Your task to perform on an android device: Open display settings Image 0: 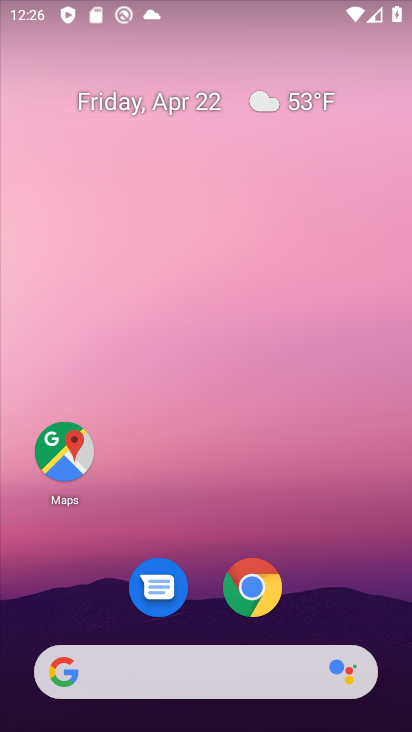
Step 0: drag from (339, 381) to (329, 91)
Your task to perform on an android device: Open display settings Image 1: 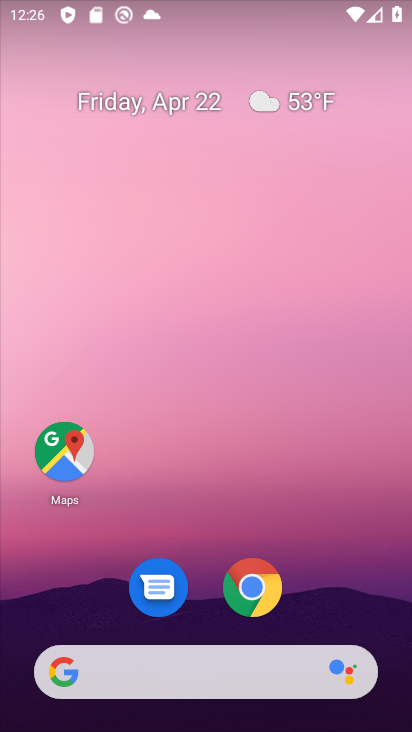
Step 1: drag from (345, 591) to (356, 174)
Your task to perform on an android device: Open display settings Image 2: 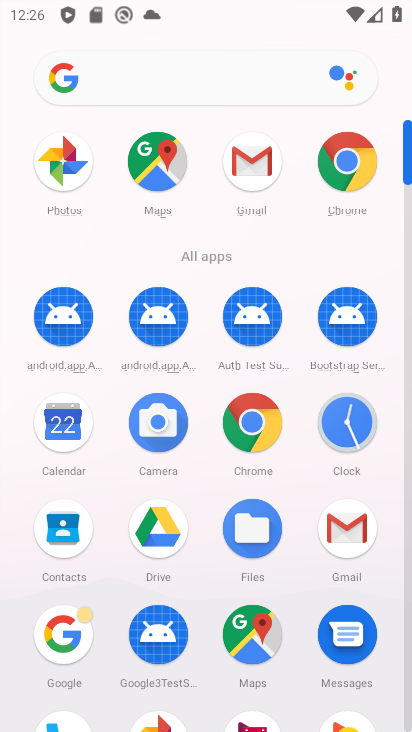
Step 2: drag from (313, 257) to (332, 16)
Your task to perform on an android device: Open display settings Image 3: 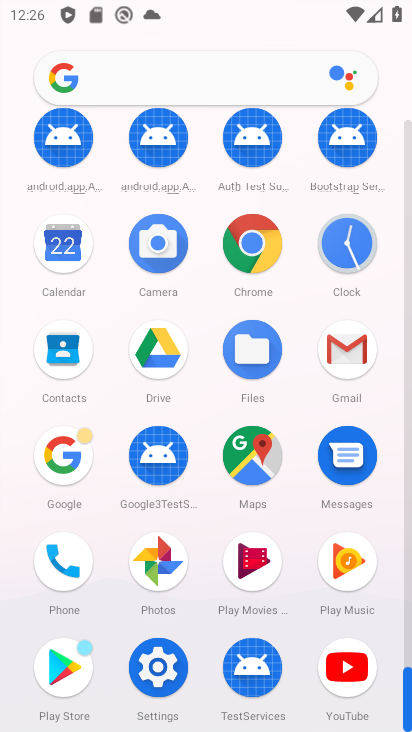
Step 3: click (165, 662)
Your task to perform on an android device: Open display settings Image 4: 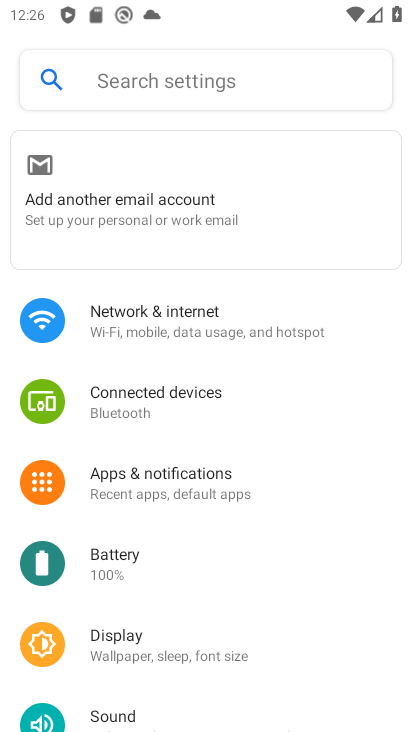
Step 4: click (105, 639)
Your task to perform on an android device: Open display settings Image 5: 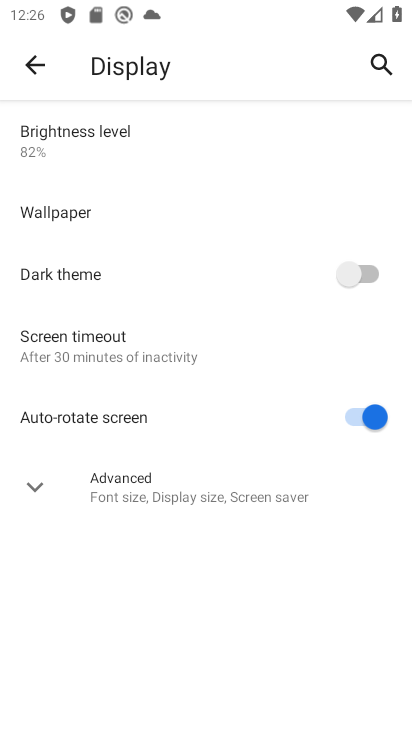
Step 5: task complete